Your task to perform on an android device: toggle show notifications on the lock screen Image 0: 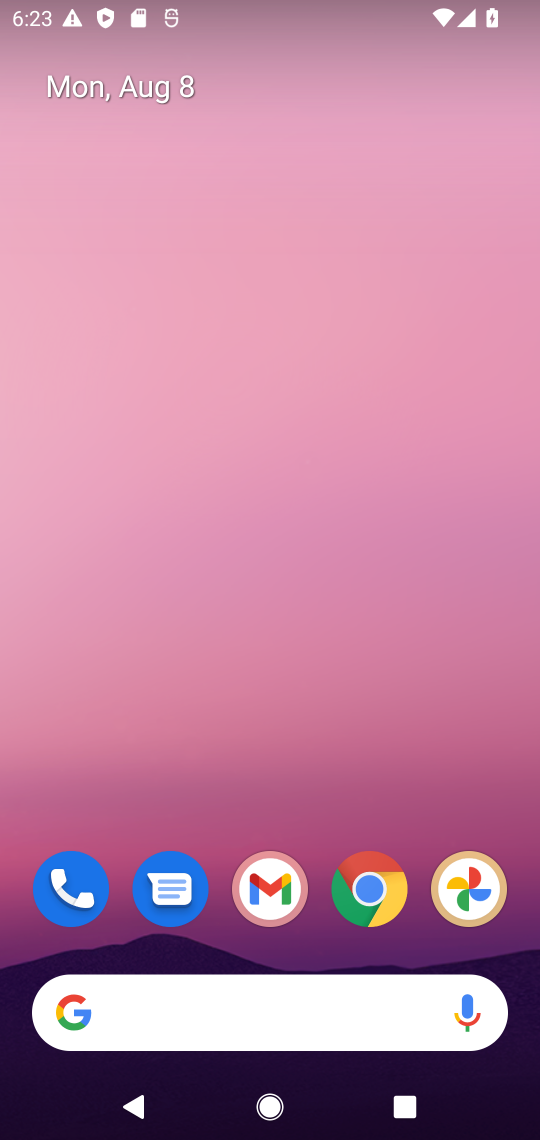
Step 0: drag from (533, 962) to (424, 159)
Your task to perform on an android device: toggle show notifications on the lock screen Image 1: 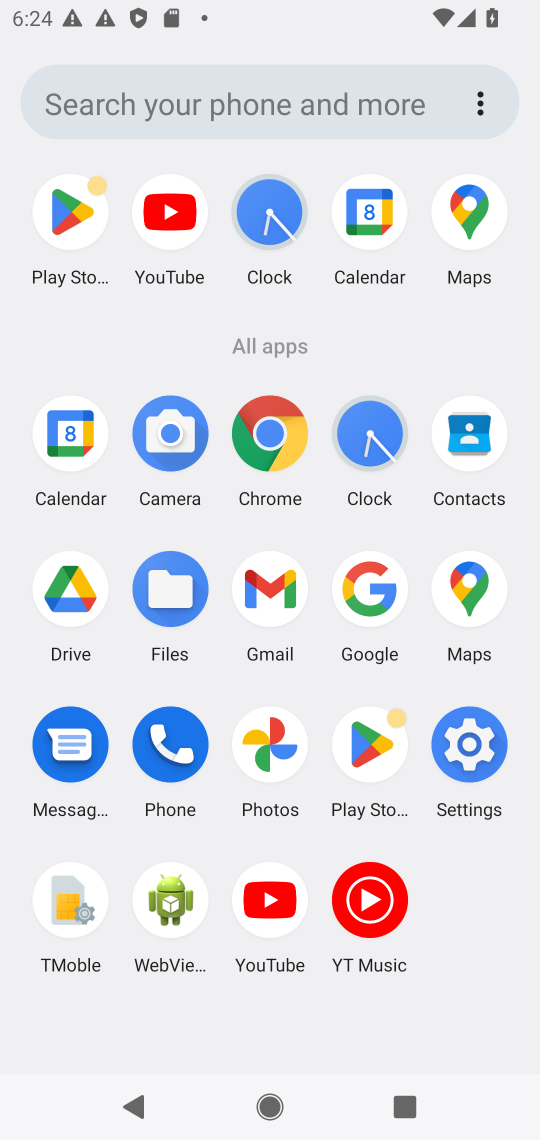
Step 1: click (466, 758)
Your task to perform on an android device: toggle show notifications on the lock screen Image 2: 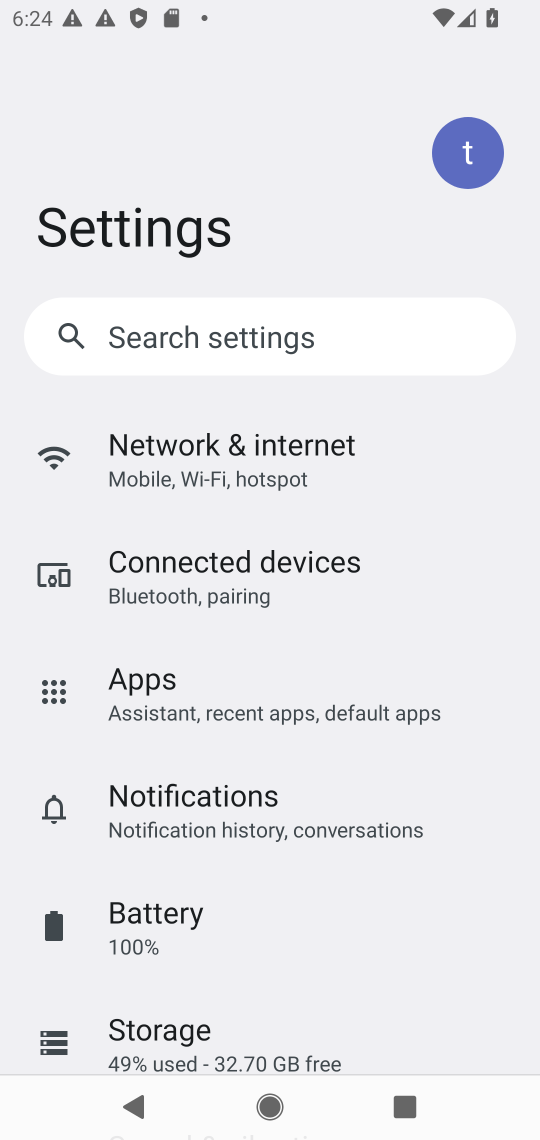
Step 2: drag from (348, 929) to (399, 362)
Your task to perform on an android device: toggle show notifications on the lock screen Image 3: 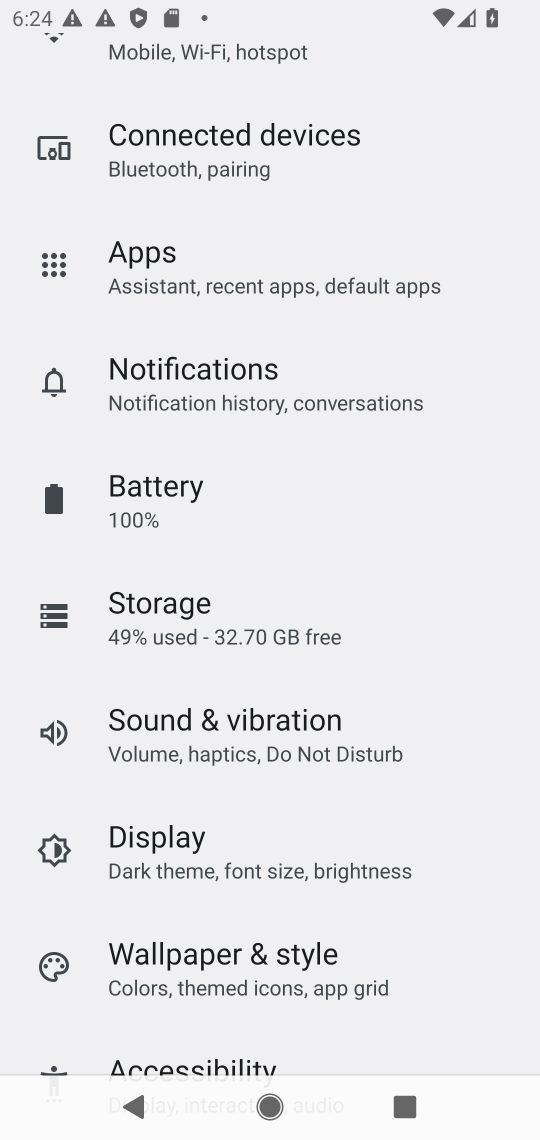
Step 3: click (231, 393)
Your task to perform on an android device: toggle show notifications on the lock screen Image 4: 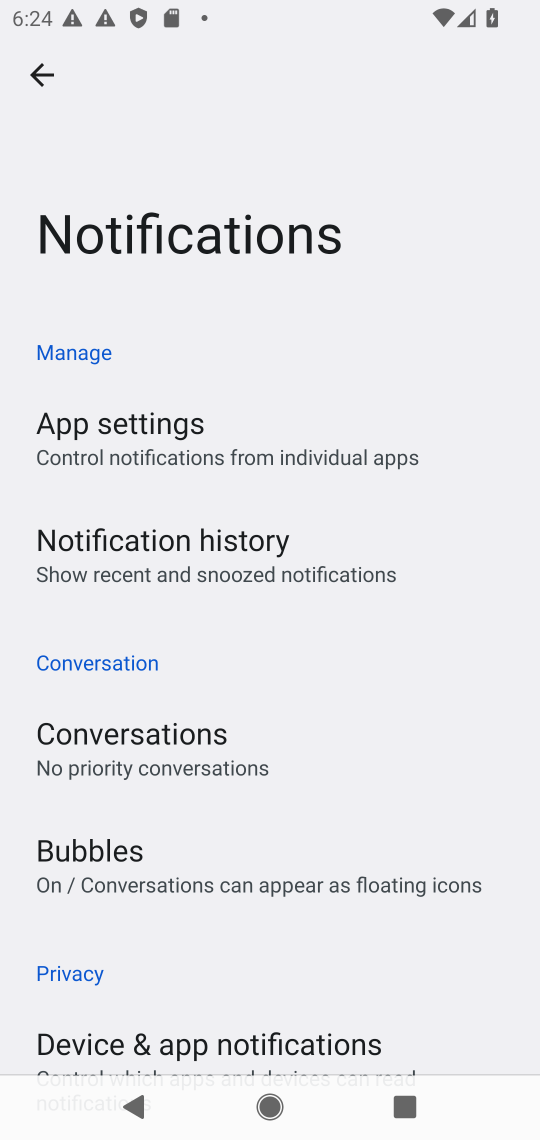
Step 4: task complete